Your task to perform on an android device: Add "bose quietcomfort 35" to the cart on costco.com Image 0: 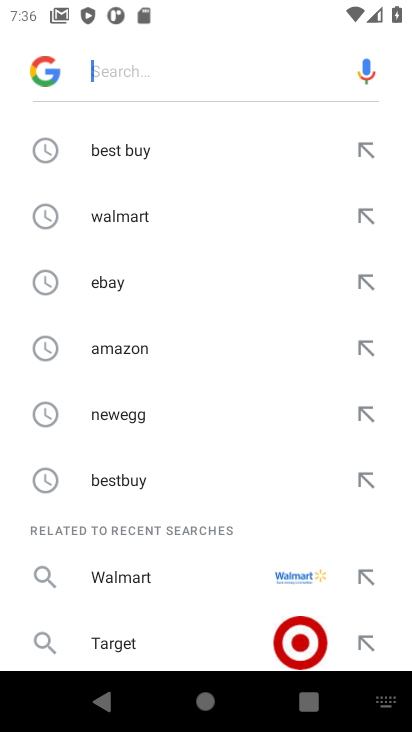
Step 0: press home button
Your task to perform on an android device: Add "bose quietcomfort 35" to the cart on costco.com Image 1: 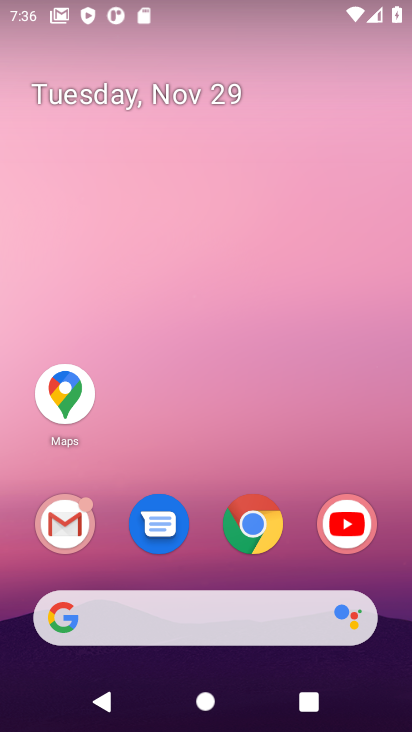
Step 1: click (260, 527)
Your task to perform on an android device: Add "bose quietcomfort 35" to the cart on costco.com Image 2: 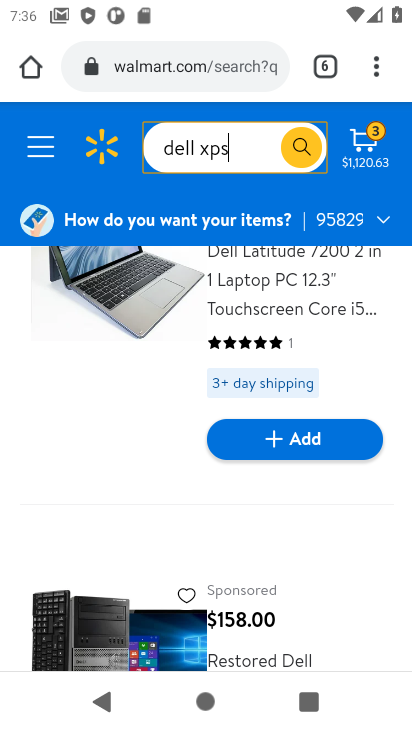
Step 2: click (182, 68)
Your task to perform on an android device: Add "bose quietcomfort 35" to the cart on costco.com Image 3: 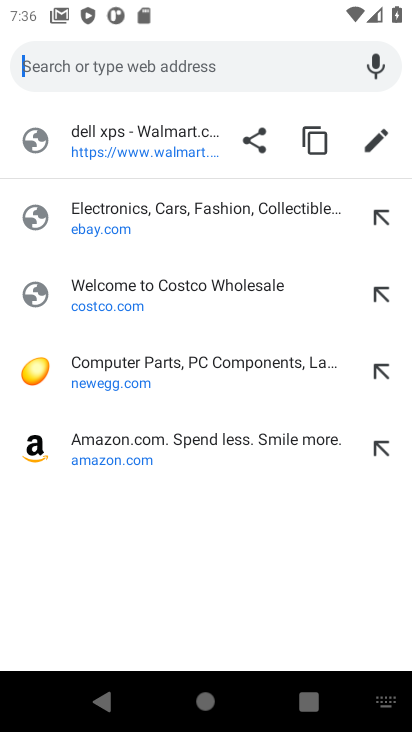
Step 3: click (69, 306)
Your task to perform on an android device: Add "bose quietcomfort 35" to the cart on costco.com Image 4: 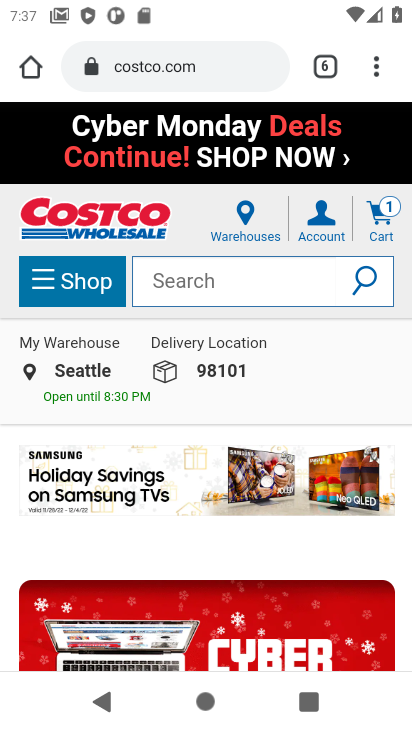
Step 4: click (169, 296)
Your task to perform on an android device: Add "bose quietcomfort 35" to the cart on costco.com Image 5: 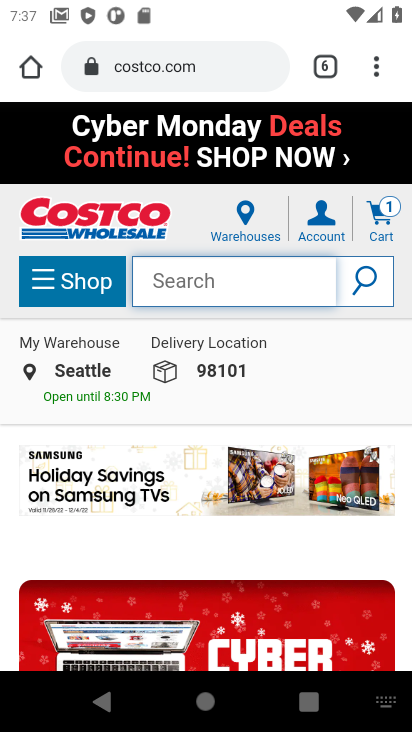
Step 5: type "bose quietcomfort 35"
Your task to perform on an android device: Add "bose quietcomfort 35" to the cart on costco.com Image 6: 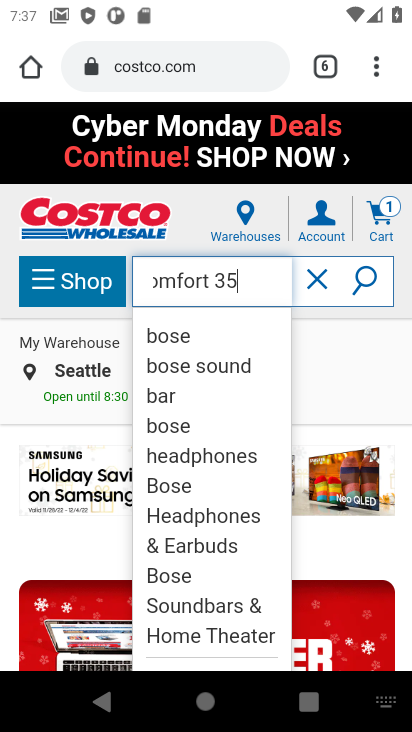
Step 6: click (376, 276)
Your task to perform on an android device: Add "bose quietcomfort 35" to the cart on costco.com Image 7: 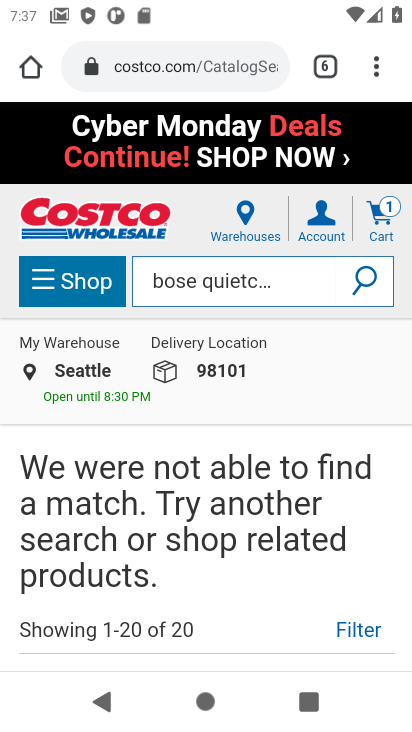
Step 7: task complete